Your task to perform on an android device: Open Chrome and go to settings Image 0: 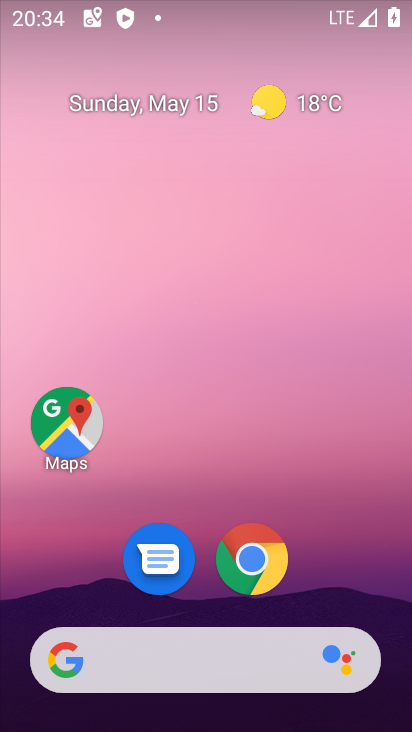
Step 0: click (259, 560)
Your task to perform on an android device: Open Chrome and go to settings Image 1: 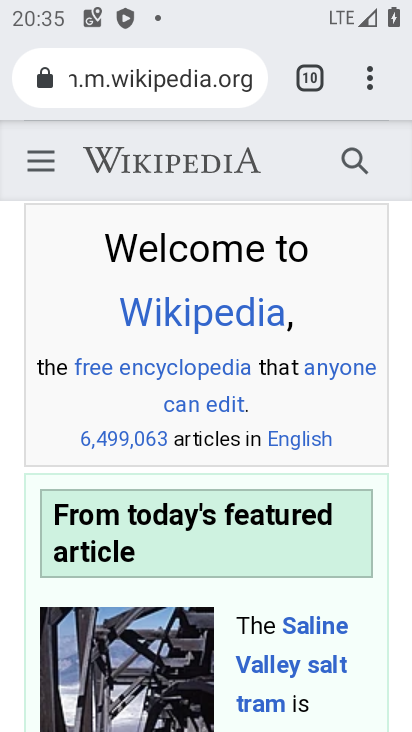
Step 1: click (371, 80)
Your task to perform on an android device: Open Chrome and go to settings Image 2: 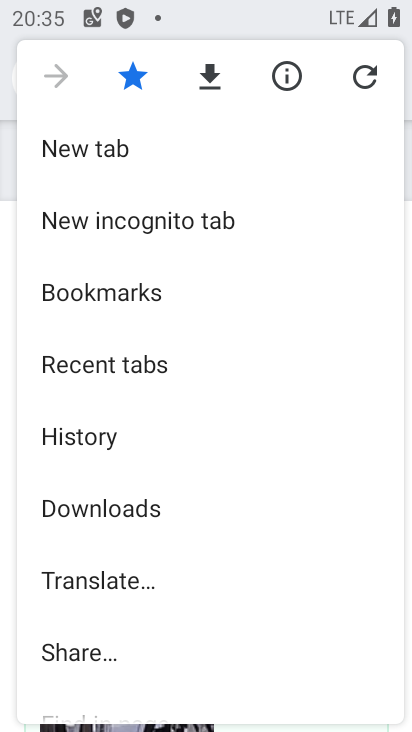
Step 2: drag from (205, 599) to (168, 298)
Your task to perform on an android device: Open Chrome and go to settings Image 3: 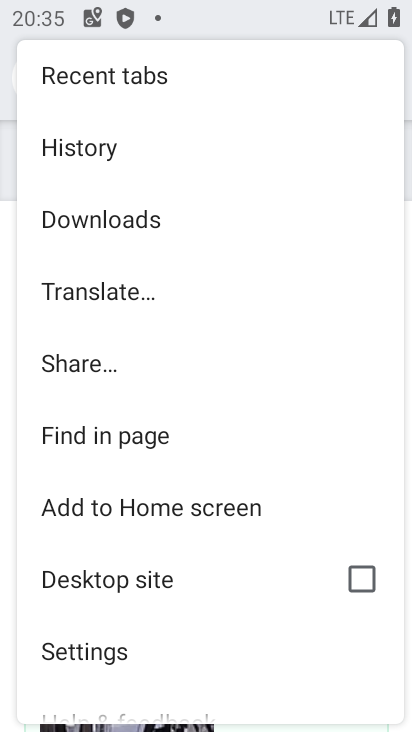
Step 3: click (94, 644)
Your task to perform on an android device: Open Chrome and go to settings Image 4: 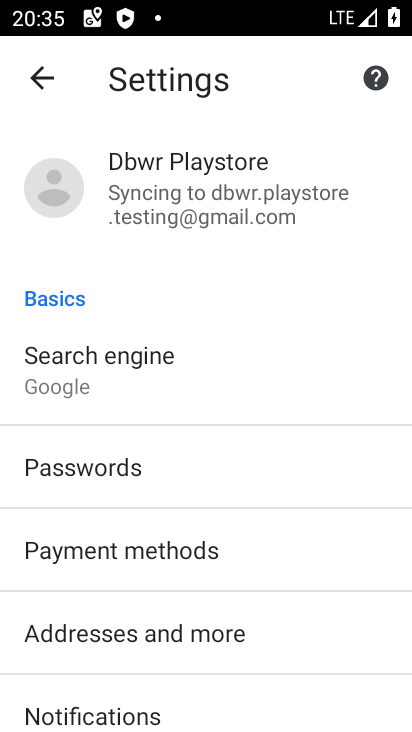
Step 4: task complete